Your task to perform on an android device: change alarm snooze length Image 0: 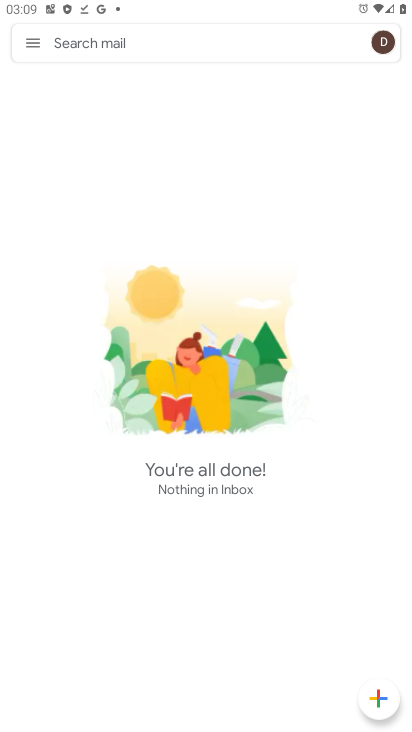
Step 0: press home button
Your task to perform on an android device: change alarm snooze length Image 1: 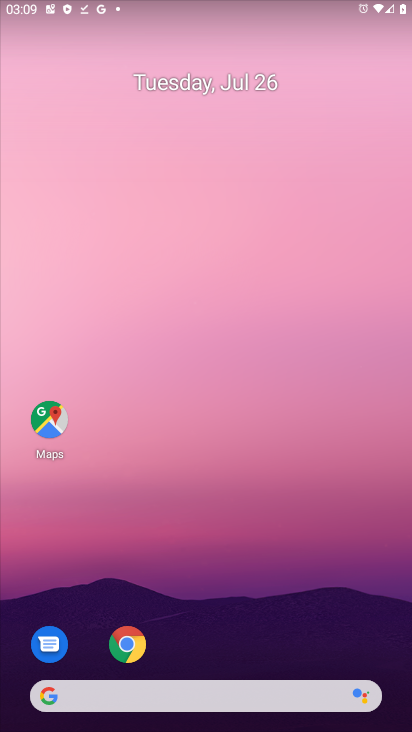
Step 1: drag from (188, 666) to (190, 54)
Your task to perform on an android device: change alarm snooze length Image 2: 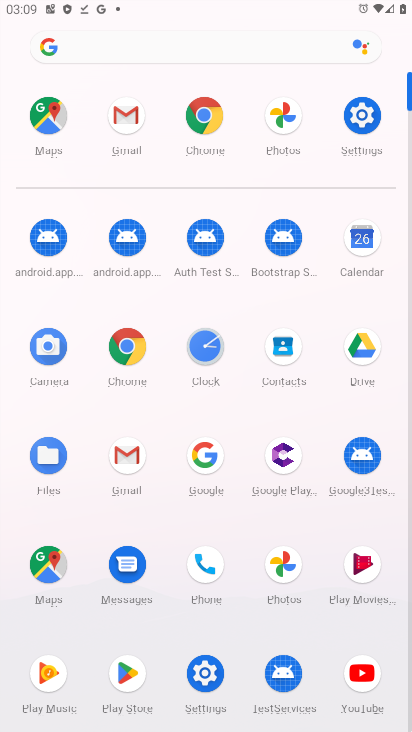
Step 2: click (207, 360)
Your task to perform on an android device: change alarm snooze length Image 3: 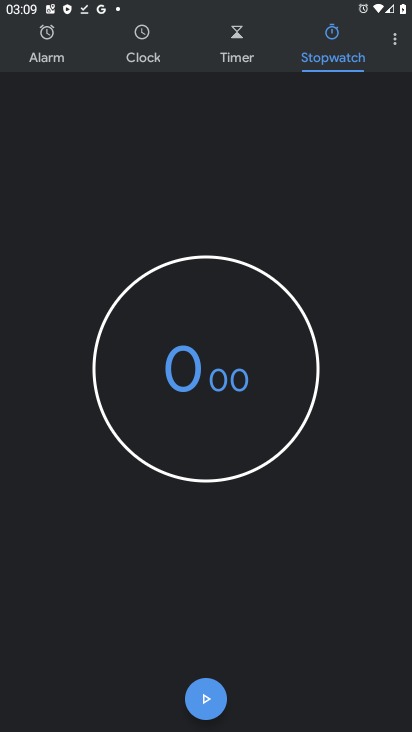
Step 3: drag from (390, 46) to (318, 75)
Your task to perform on an android device: change alarm snooze length Image 4: 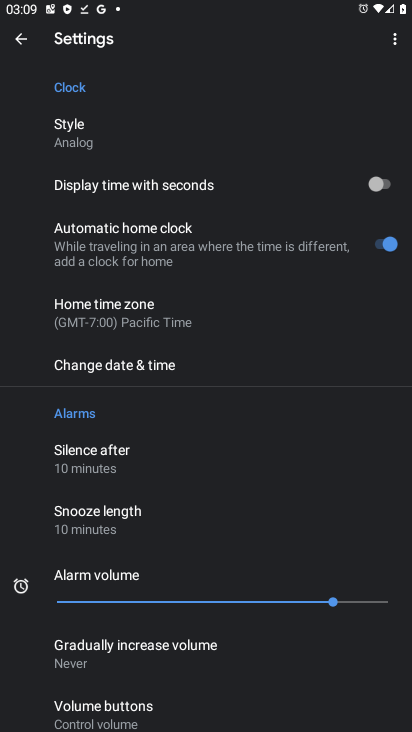
Step 4: click (120, 522)
Your task to perform on an android device: change alarm snooze length Image 5: 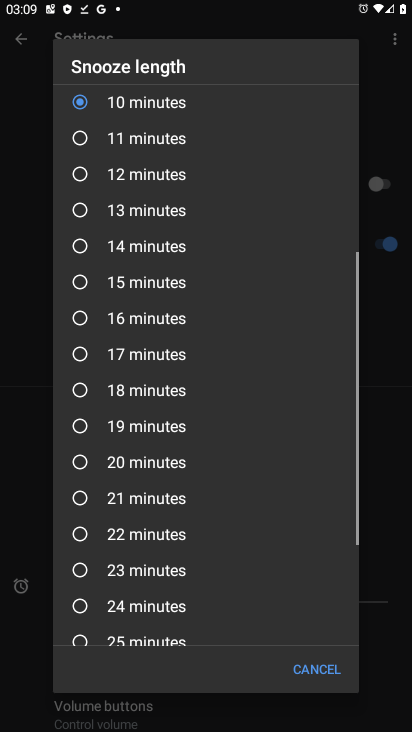
Step 5: click (80, 138)
Your task to perform on an android device: change alarm snooze length Image 6: 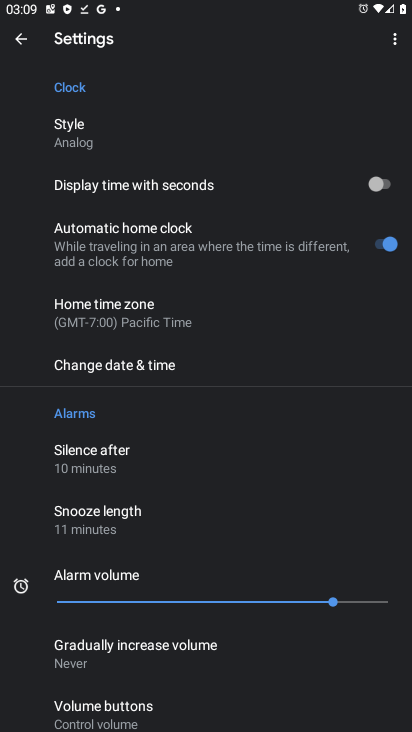
Step 6: task complete